Your task to perform on an android device: Is it going to rain this weekend? Image 0: 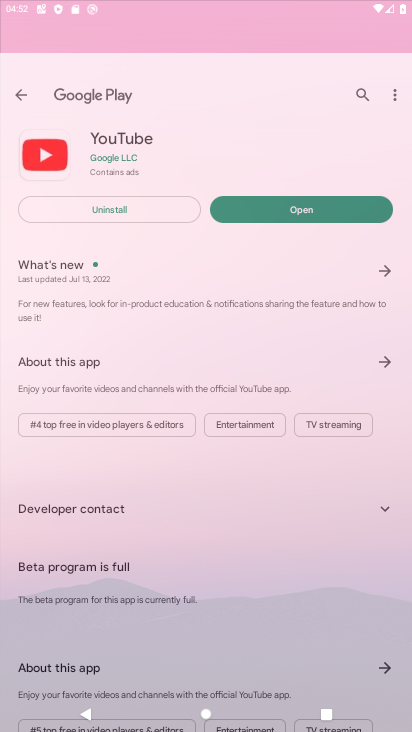
Step 0: press home button
Your task to perform on an android device: Is it going to rain this weekend? Image 1: 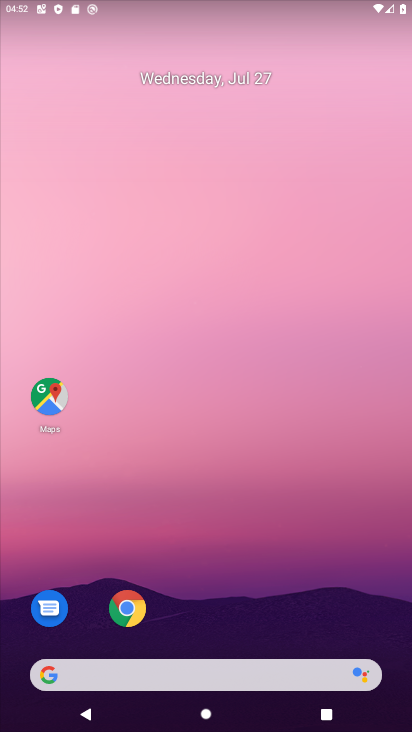
Step 1: click (54, 671)
Your task to perform on an android device: Is it going to rain this weekend? Image 2: 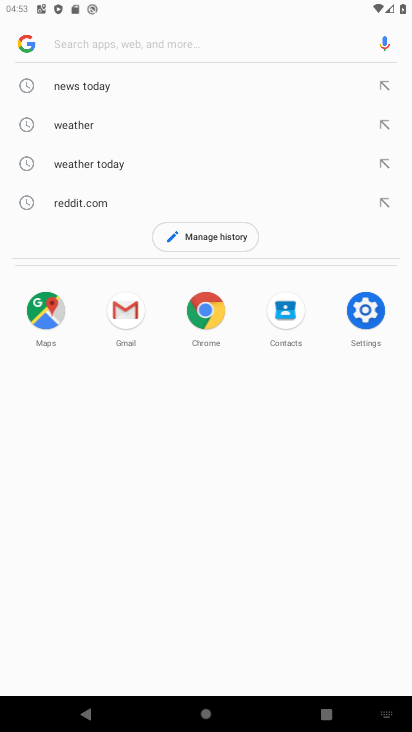
Step 2: press enter
Your task to perform on an android device: Is it going to rain this weekend? Image 3: 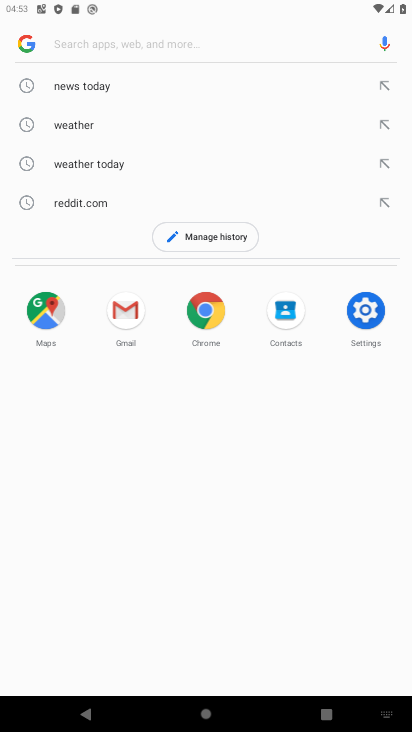
Step 3: type "rain this weekend?"
Your task to perform on an android device: Is it going to rain this weekend? Image 4: 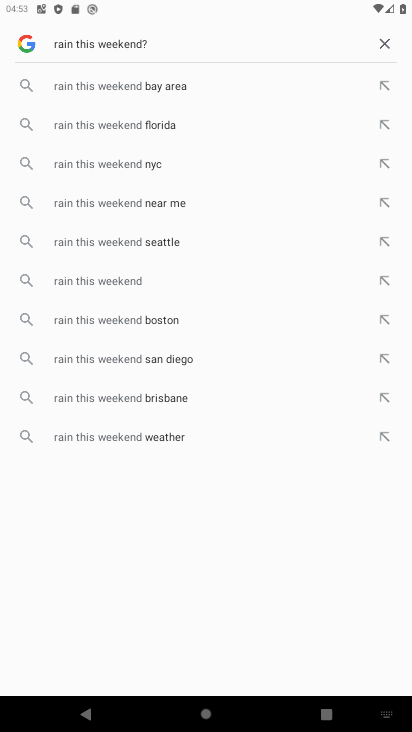
Step 4: press enter
Your task to perform on an android device: Is it going to rain this weekend? Image 5: 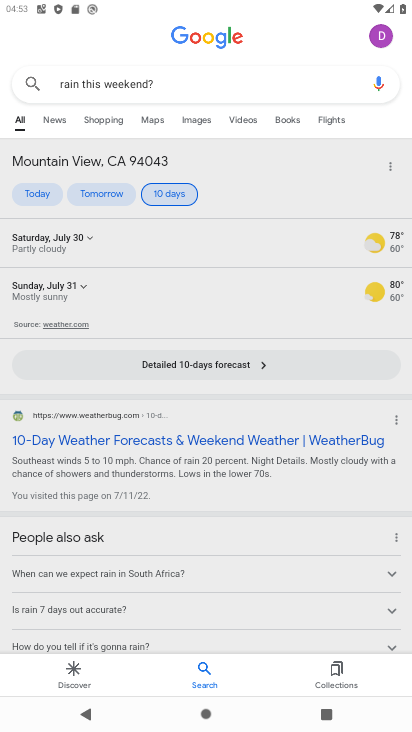
Step 5: task complete